Your task to perform on an android device: turn off smart reply in the gmail app Image 0: 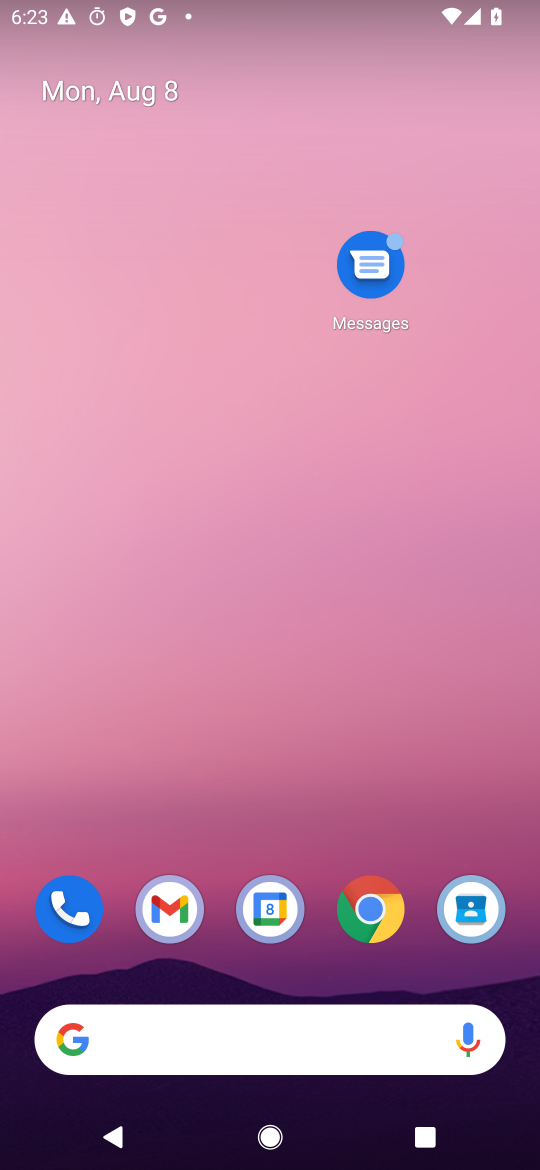
Step 0: click (167, 915)
Your task to perform on an android device: turn off smart reply in the gmail app Image 1: 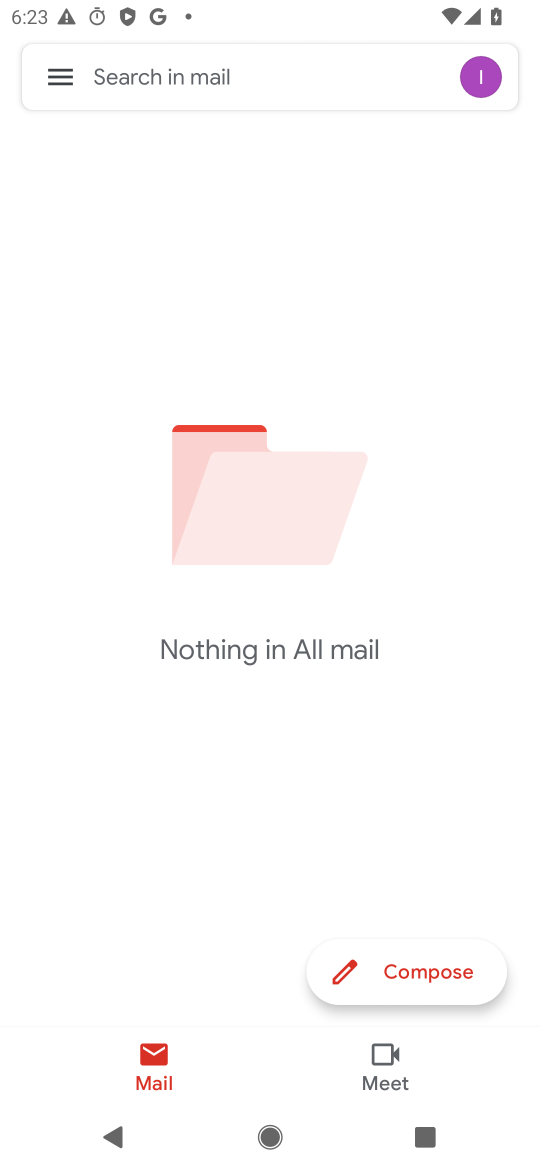
Step 1: click (61, 69)
Your task to perform on an android device: turn off smart reply in the gmail app Image 2: 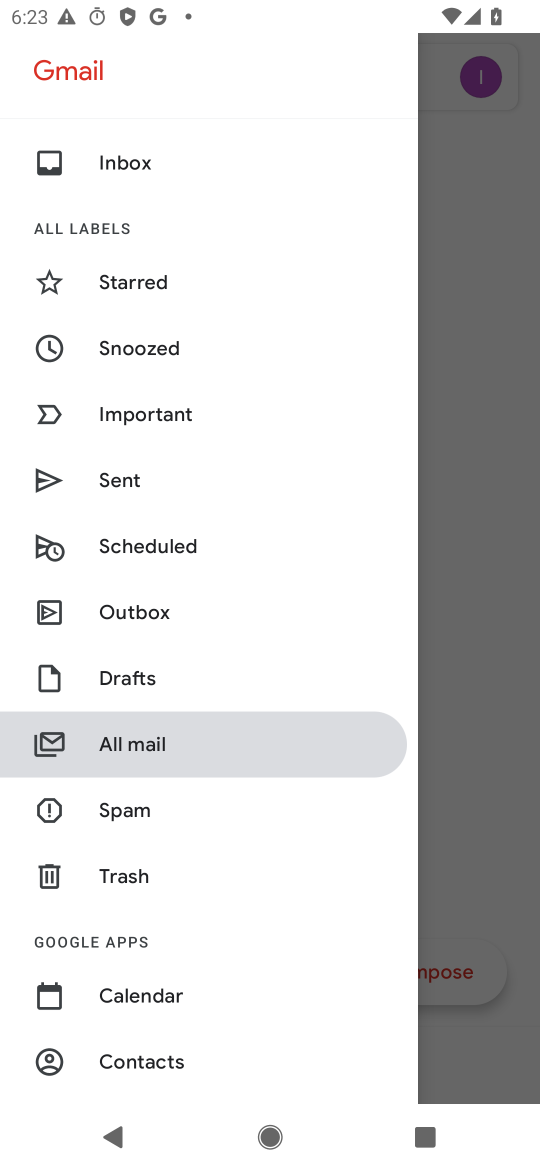
Step 2: drag from (216, 954) to (324, 318)
Your task to perform on an android device: turn off smart reply in the gmail app Image 3: 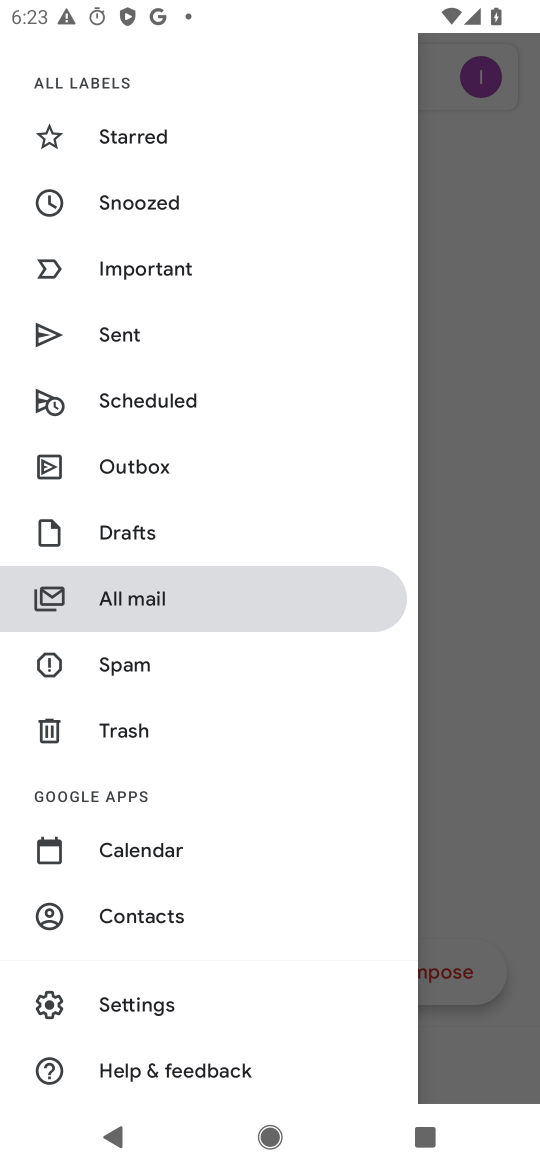
Step 3: click (164, 1009)
Your task to perform on an android device: turn off smart reply in the gmail app Image 4: 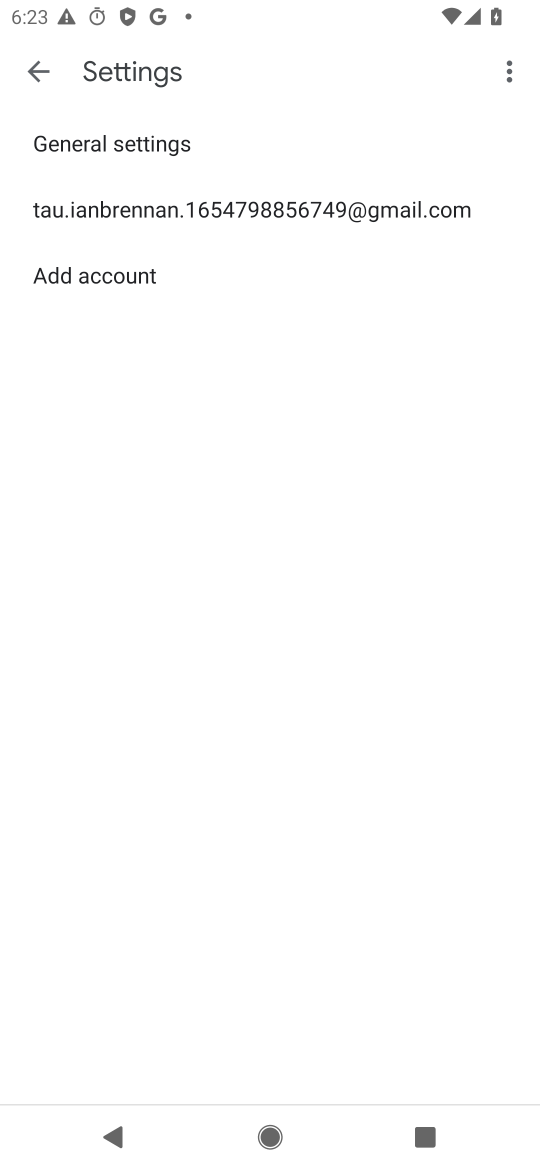
Step 4: click (331, 203)
Your task to perform on an android device: turn off smart reply in the gmail app Image 5: 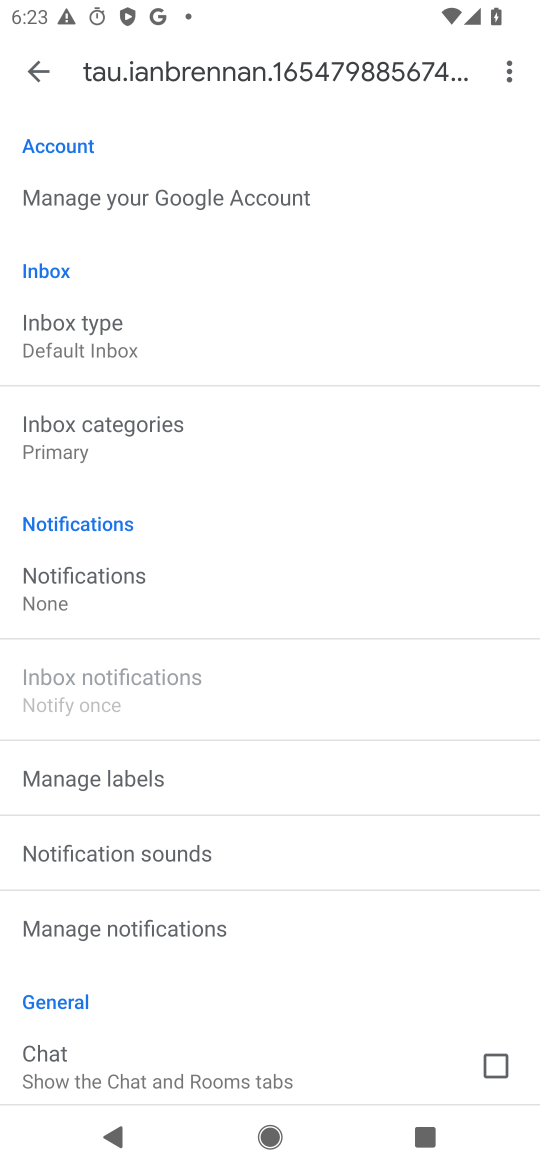
Step 5: task complete